Your task to perform on an android device: turn pop-ups off in chrome Image 0: 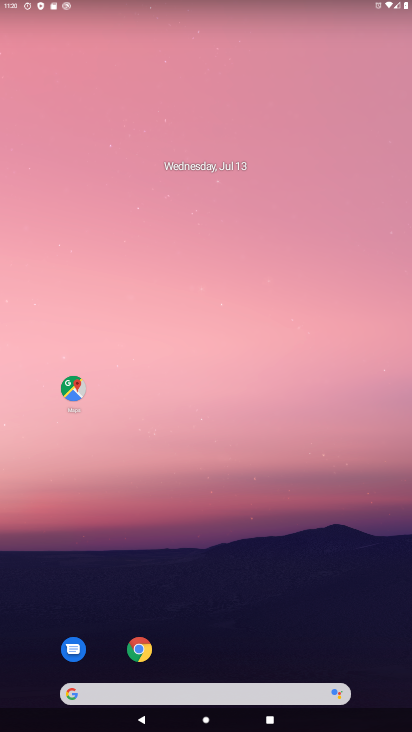
Step 0: click (139, 649)
Your task to perform on an android device: turn pop-ups off in chrome Image 1: 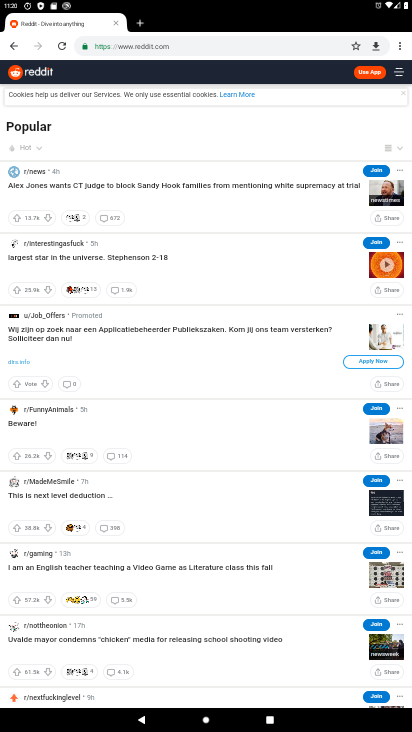
Step 1: click (400, 46)
Your task to perform on an android device: turn pop-ups off in chrome Image 2: 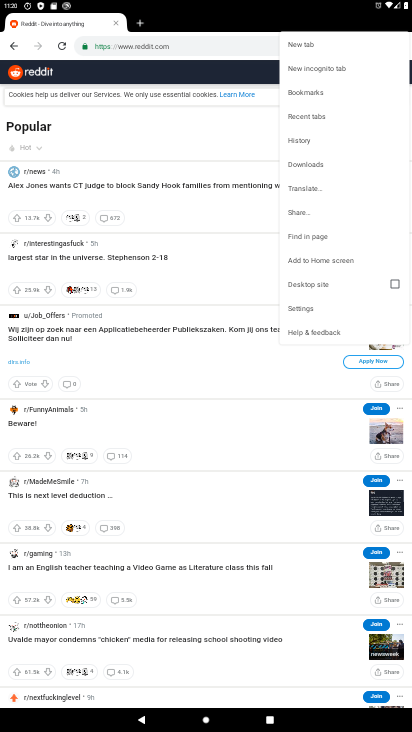
Step 2: click (307, 311)
Your task to perform on an android device: turn pop-ups off in chrome Image 3: 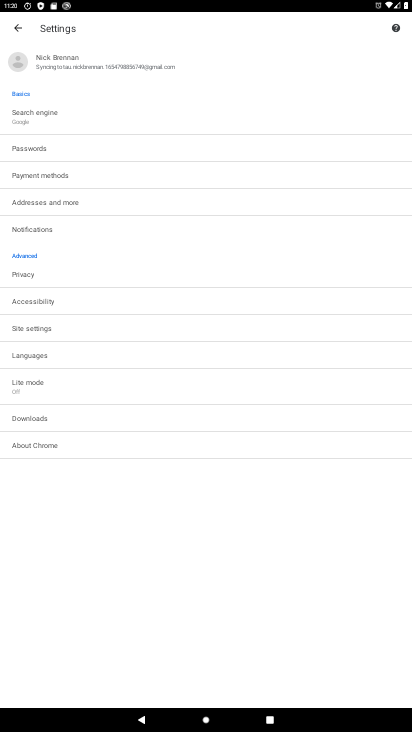
Step 3: click (43, 329)
Your task to perform on an android device: turn pop-ups off in chrome Image 4: 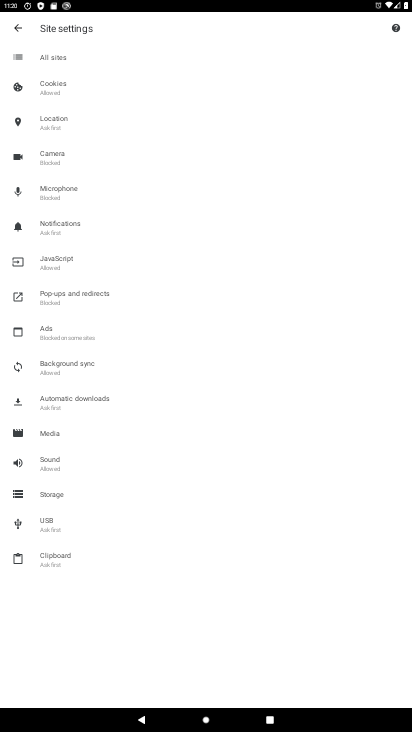
Step 4: click (64, 299)
Your task to perform on an android device: turn pop-ups off in chrome Image 5: 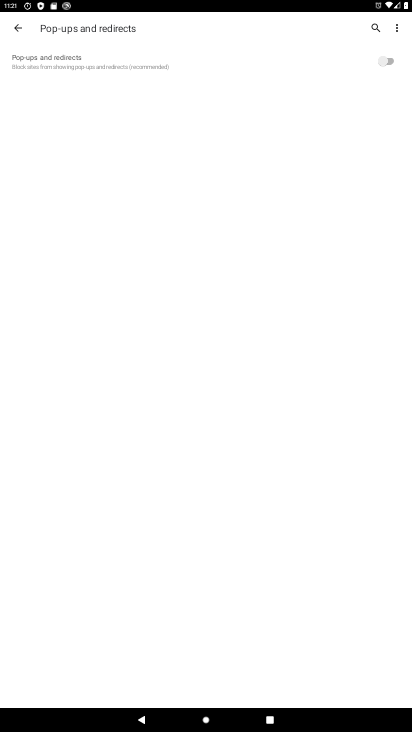
Step 5: task complete